Your task to perform on an android device: Go to internet settings Image 0: 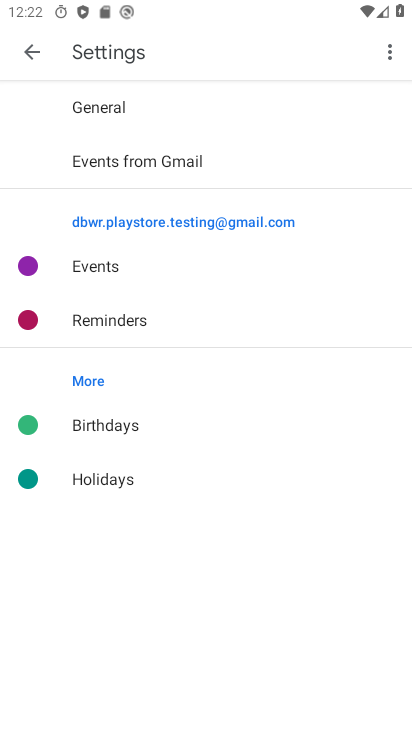
Step 0: press back button
Your task to perform on an android device: Go to internet settings Image 1: 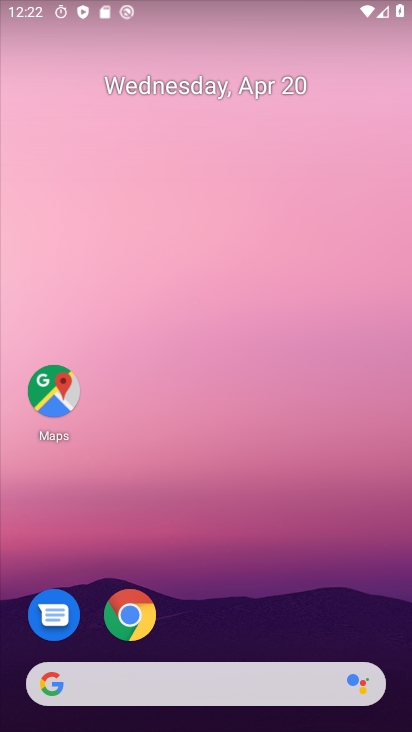
Step 1: drag from (196, 648) to (332, 89)
Your task to perform on an android device: Go to internet settings Image 2: 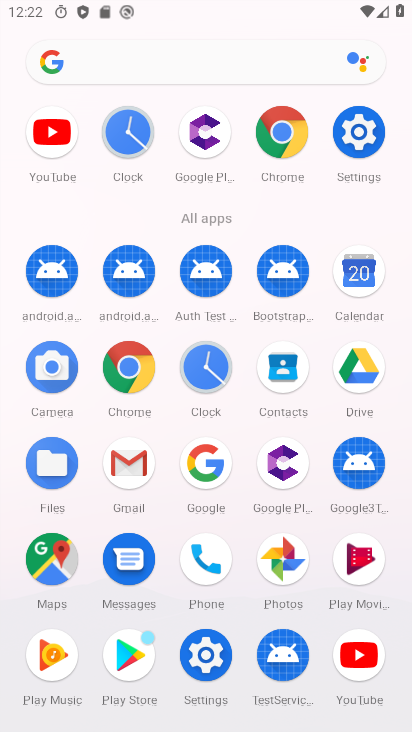
Step 2: click (188, 662)
Your task to perform on an android device: Go to internet settings Image 3: 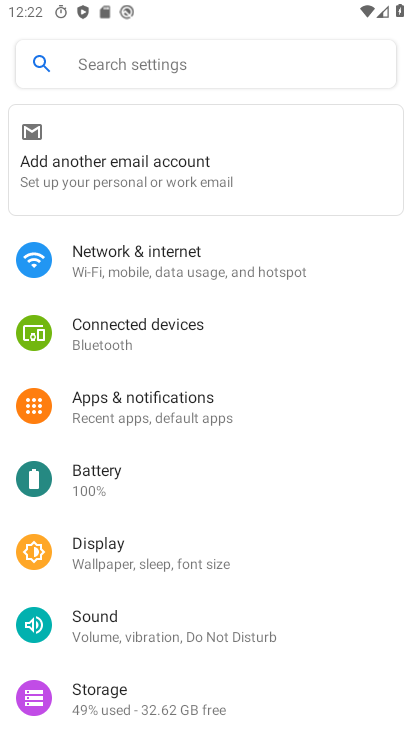
Step 3: click (228, 276)
Your task to perform on an android device: Go to internet settings Image 4: 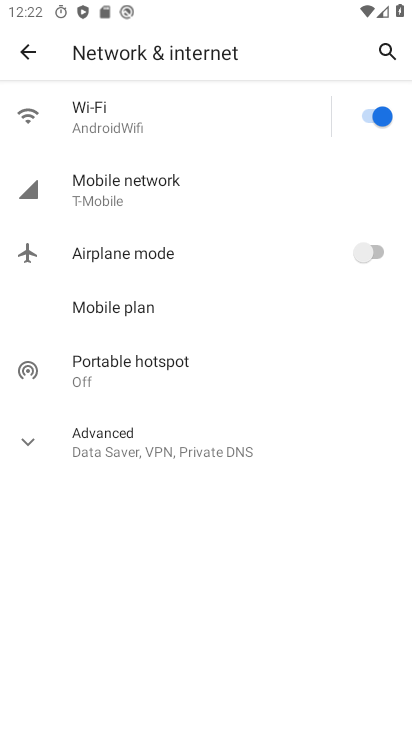
Step 4: task complete